Your task to perform on an android device: check the backup settings in the google photos Image 0: 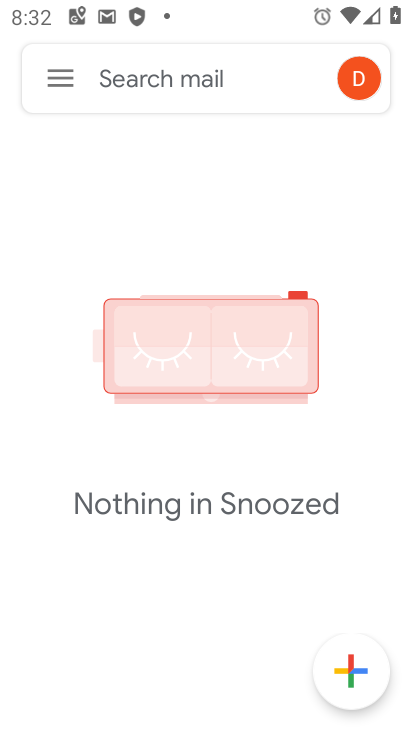
Step 0: press home button
Your task to perform on an android device: check the backup settings in the google photos Image 1: 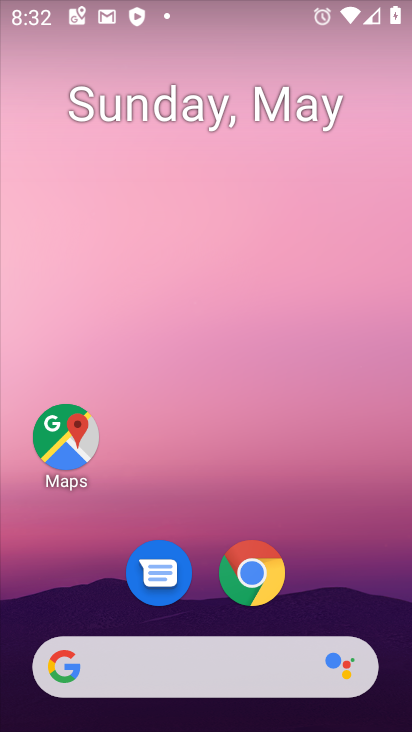
Step 1: drag from (236, 487) to (200, 2)
Your task to perform on an android device: check the backup settings in the google photos Image 2: 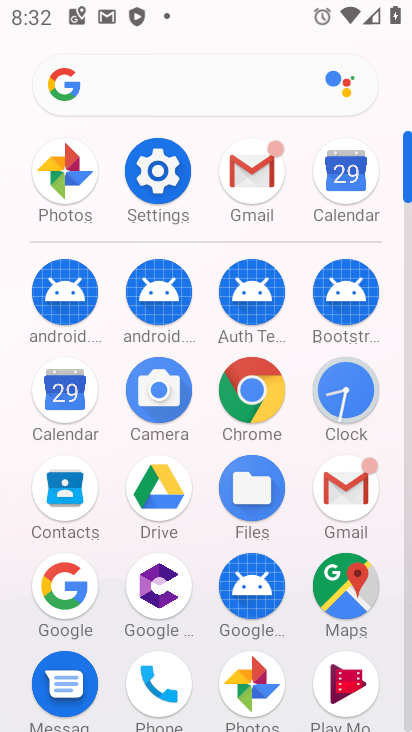
Step 2: click (62, 156)
Your task to perform on an android device: check the backup settings in the google photos Image 3: 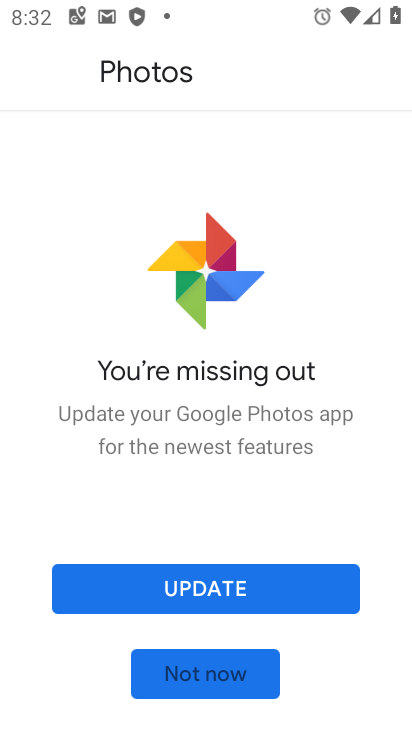
Step 3: click (210, 676)
Your task to perform on an android device: check the backup settings in the google photos Image 4: 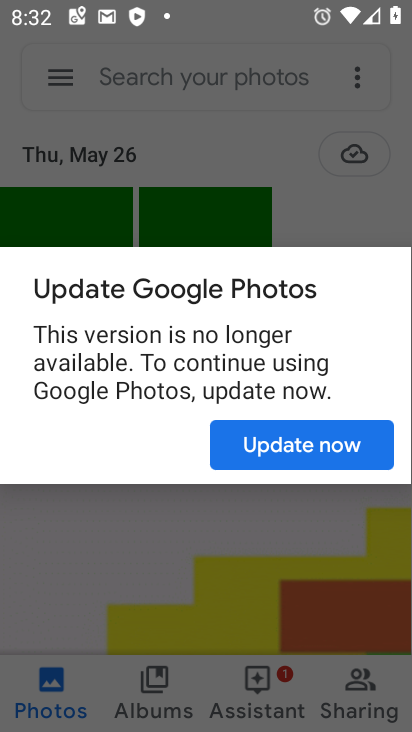
Step 4: click (355, 437)
Your task to perform on an android device: check the backup settings in the google photos Image 5: 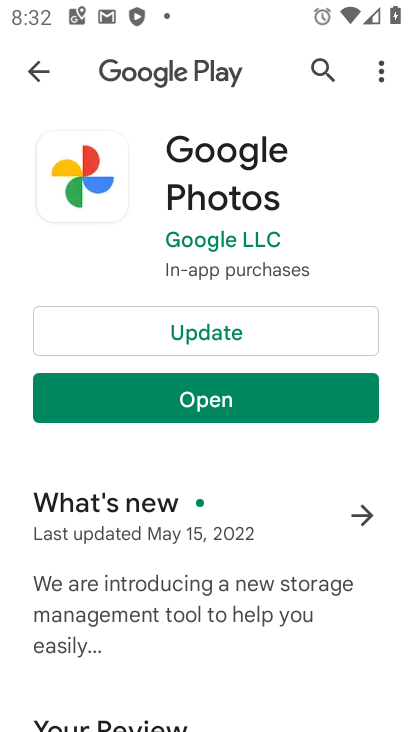
Step 5: click (323, 402)
Your task to perform on an android device: check the backup settings in the google photos Image 6: 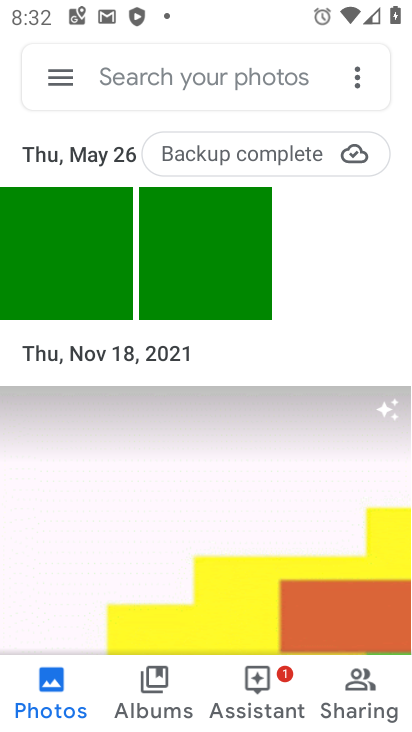
Step 6: click (63, 76)
Your task to perform on an android device: check the backup settings in the google photos Image 7: 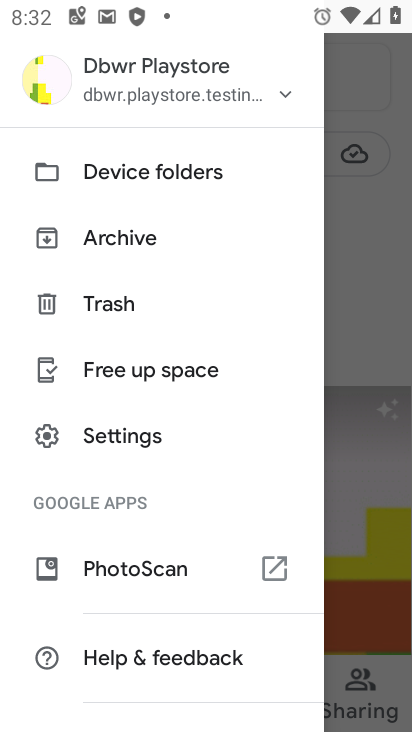
Step 7: click (144, 432)
Your task to perform on an android device: check the backup settings in the google photos Image 8: 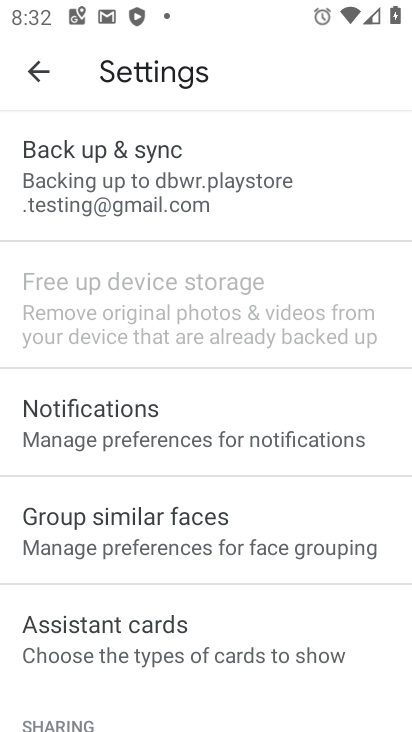
Step 8: click (153, 201)
Your task to perform on an android device: check the backup settings in the google photos Image 9: 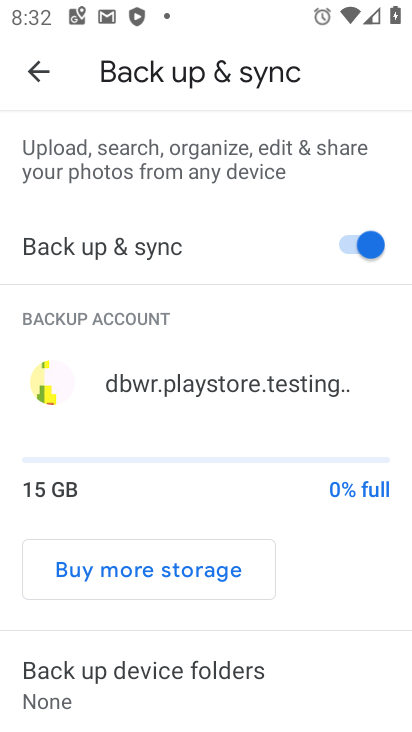
Step 9: task complete